Your task to perform on an android device: Show me recent news Image 0: 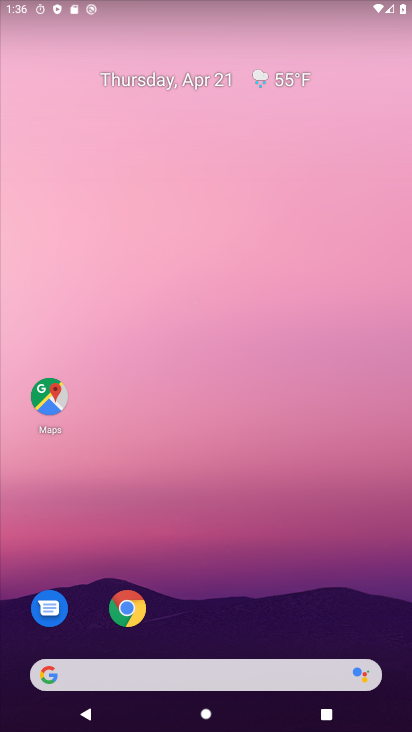
Step 0: click (123, 610)
Your task to perform on an android device: Show me recent news Image 1: 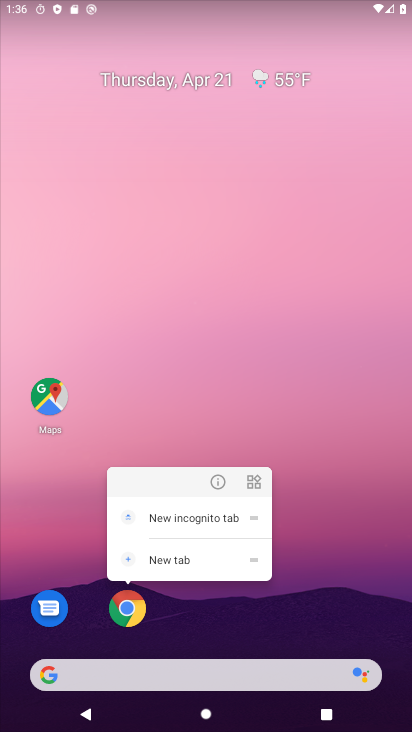
Step 1: click (125, 597)
Your task to perform on an android device: Show me recent news Image 2: 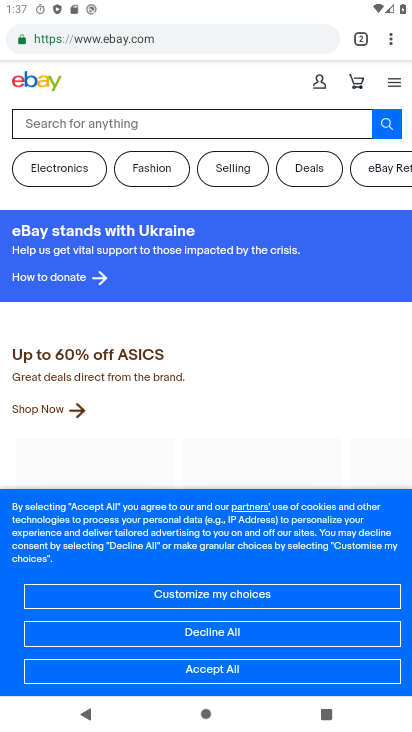
Step 2: click (354, 36)
Your task to perform on an android device: Show me recent news Image 3: 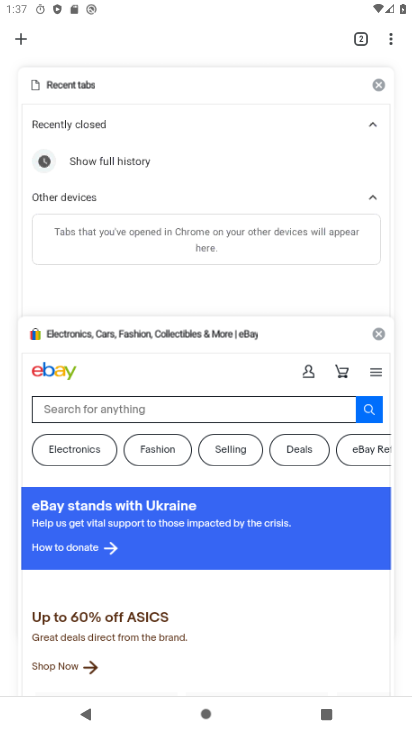
Step 3: click (25, 33)
Your task to perform on an android device: Show me recent news Image 4: 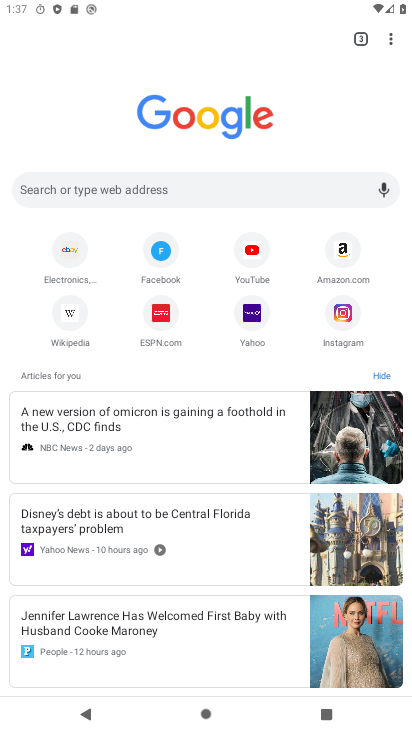
Step 4: click (108, 190)
Your task to perform on an android device: Show me recent news Image 5: 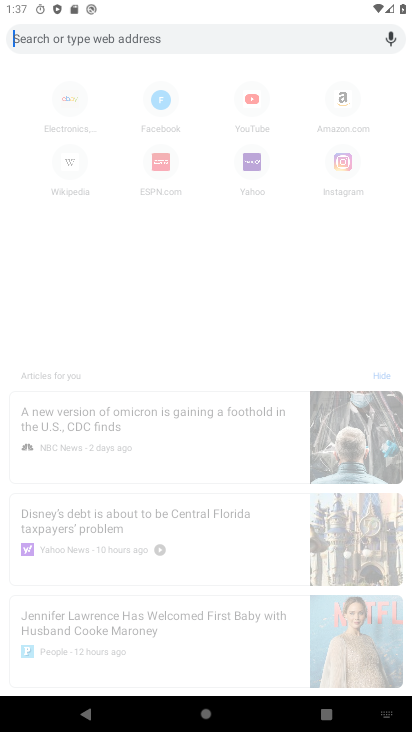
Step 5: type "recent news"
Your task to perform on an android device: Show me recent news Image 6: 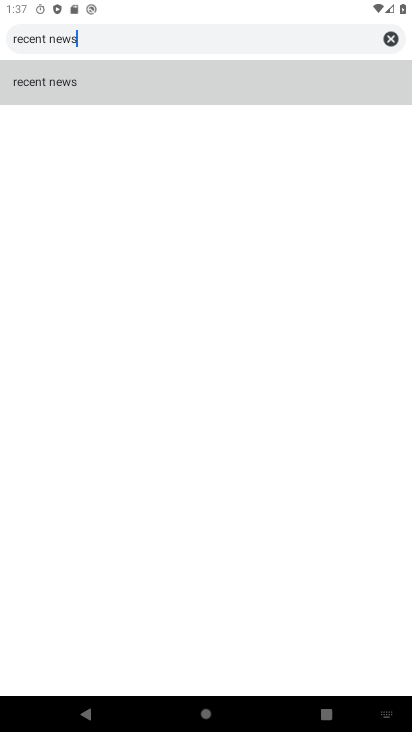
Step 6: click (31, 84)
Your task to perform on an android device: Show me recent news Image 7: 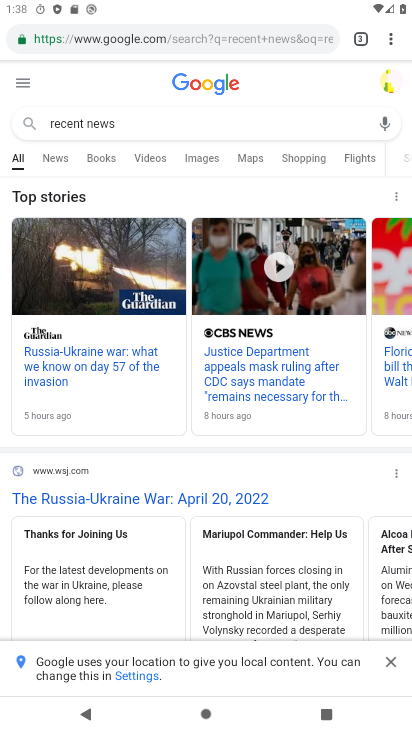
Step 7: task complete